Your task to perform on an android device: open sync settings in chrome Image 0: 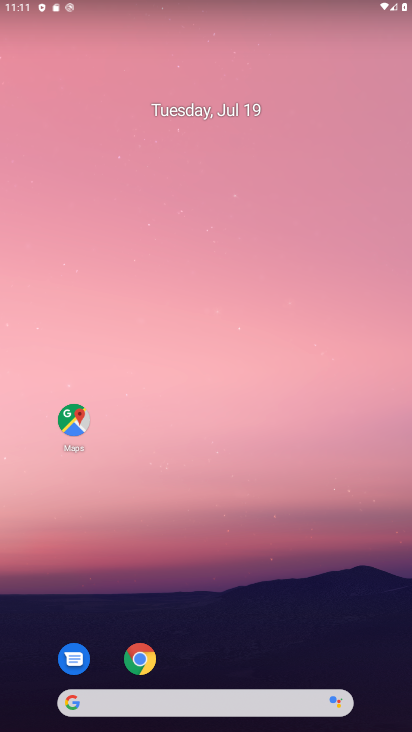
Step 0: press home button
Your task to perform on an android device: open sync settings in chrome Image 1: 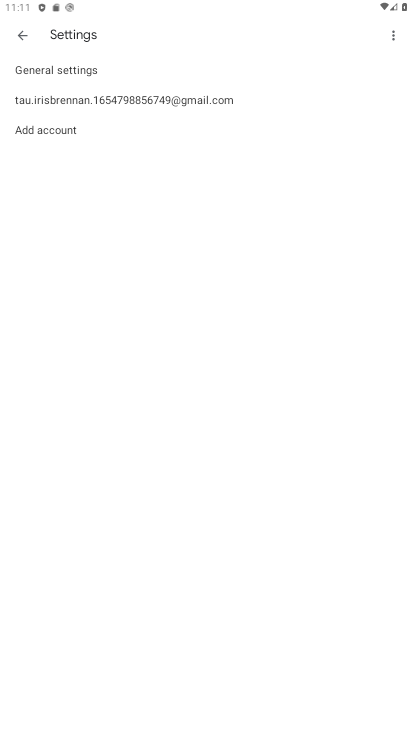
Step 1: click (251, 7)
Your task to perform on an android device: open sync settings in chrome Image 2: 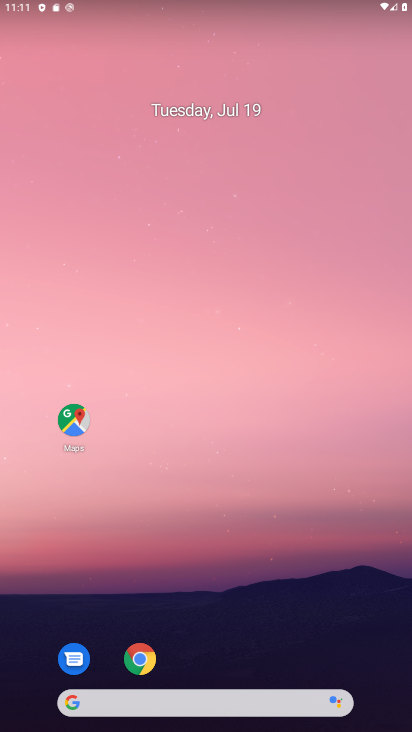
Step 2: click (137, 652)
Your task to perform on an android device: open sync settings in chrome Image 3: 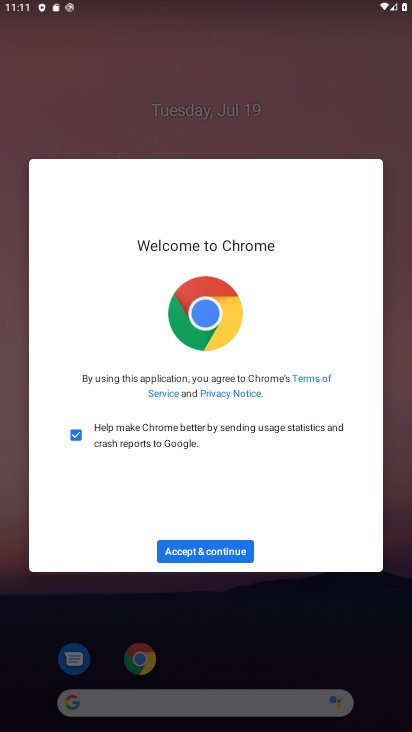
Step 3: click (196, 544)
Your task to perform on an android device: open sync settings in chrome Image 4: 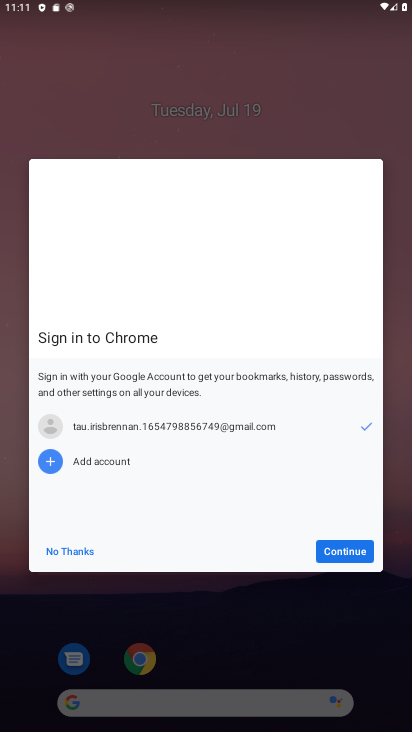
Step 4: click (345, 552)
Your task to perform on an android device: open sync settings in chrome Image 5: 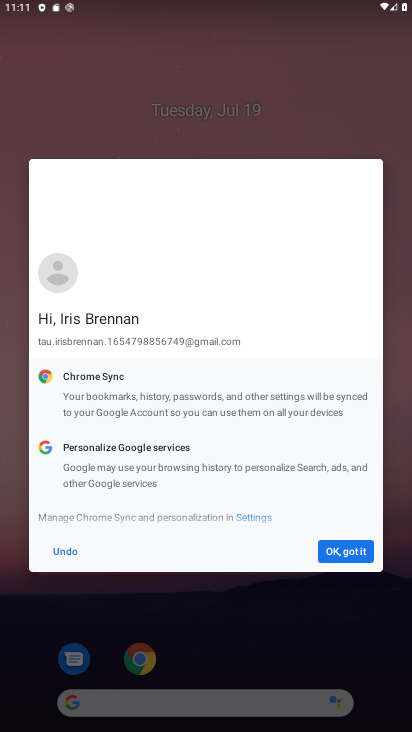
Step 5: click (340, 549)
Your task to perform on an android device: open sync settings in chrome Image 6: 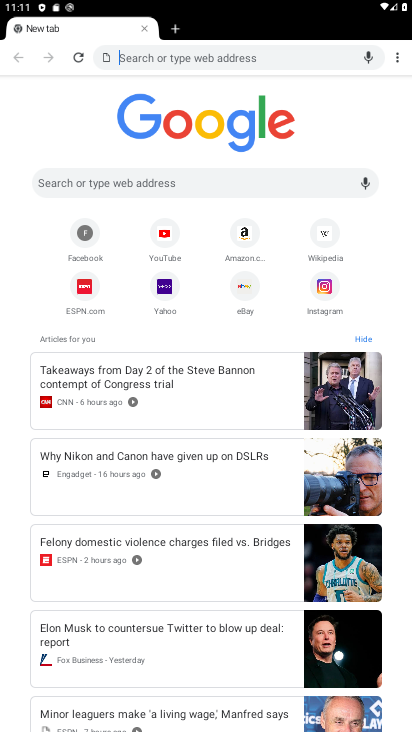
Step 6: click (397, 55)
Your task to perform on an android device: open sync settings in chrome Image 7: 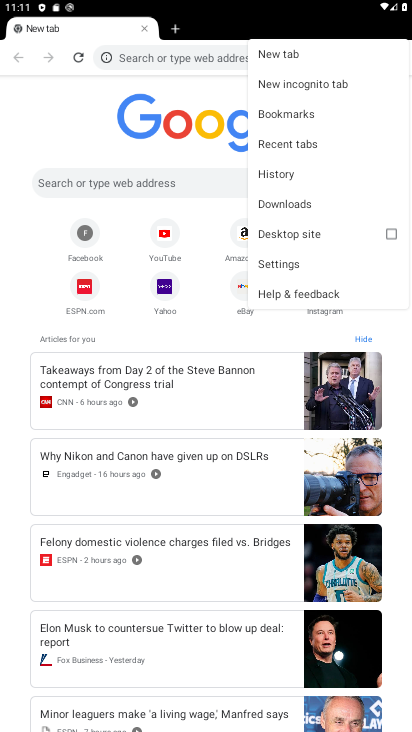
Step 7: click (313, 268)
Your task to perform on an android device: open sync settings in chrome Image 8: 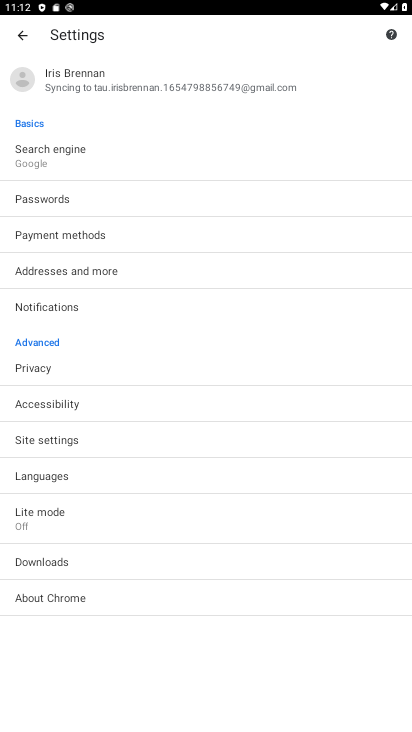
Step 8: click (116, 71)
Your task to perform on an android device: open sync settings in chrome Image 9: 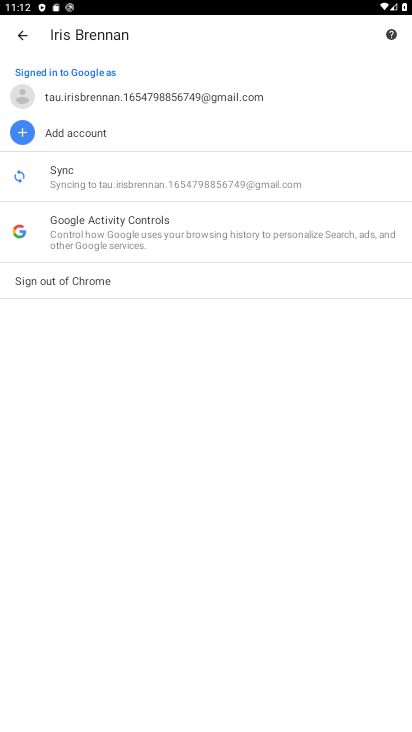
Step 9: click (85, 178)
Your task to perform on an android device: open sync settings in chrome Image 10: 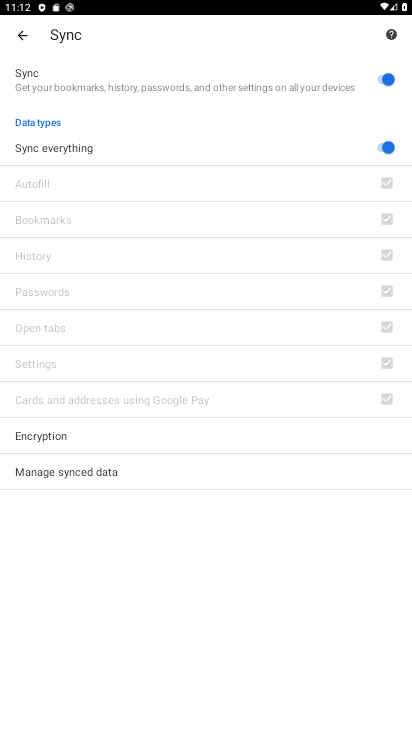
Step 10: task complete